Your task to perform on an android device: Go to Google Image 0: 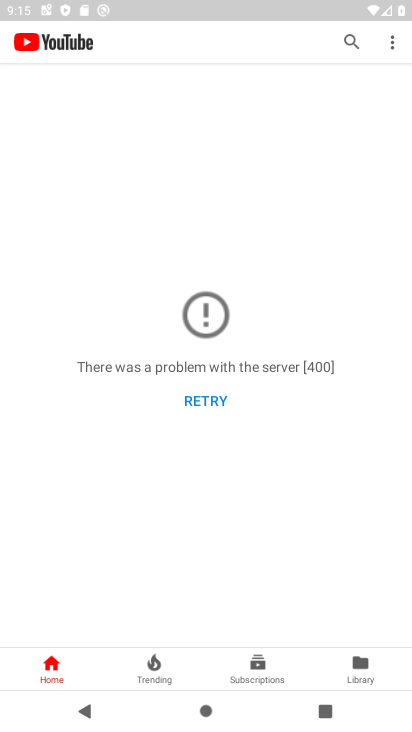
Step 0: press home button
Your task to perform on an android device: Go to Google Image 1: 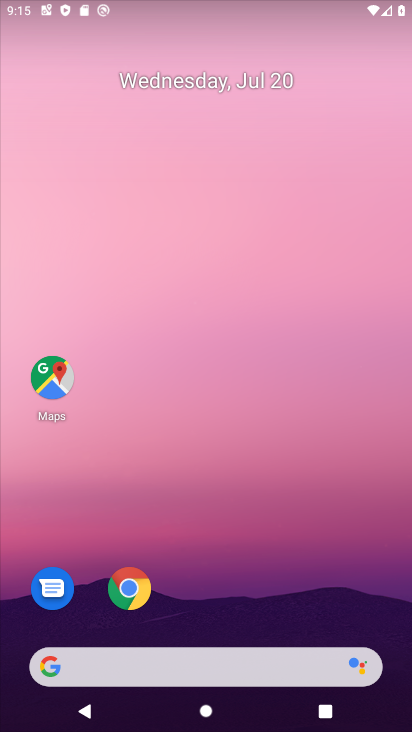
Step 1: drag from (242, 628) to (254, 143)
Your task to perform on an android device: Go to Google Image 2: 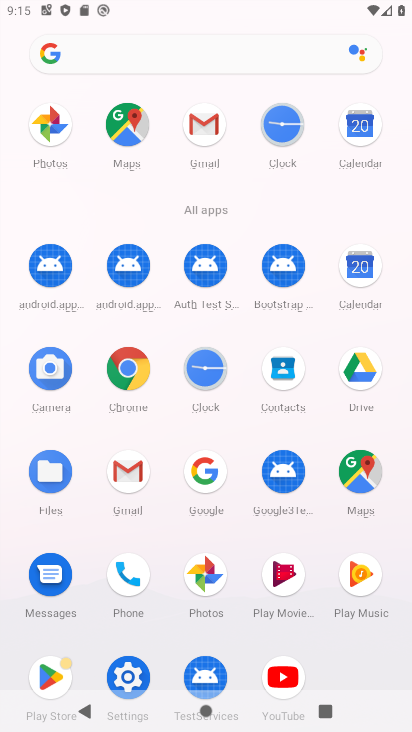
Step 2: click (200, 479)
Your task to perform on an android device: Go to Google Image 3: 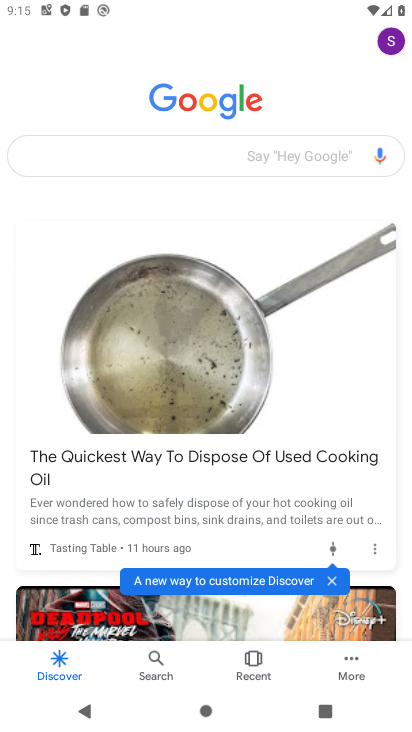
Step 3: task complete